Your task to perform on an android device: Show me productivity apps on the Play Store Image 0: 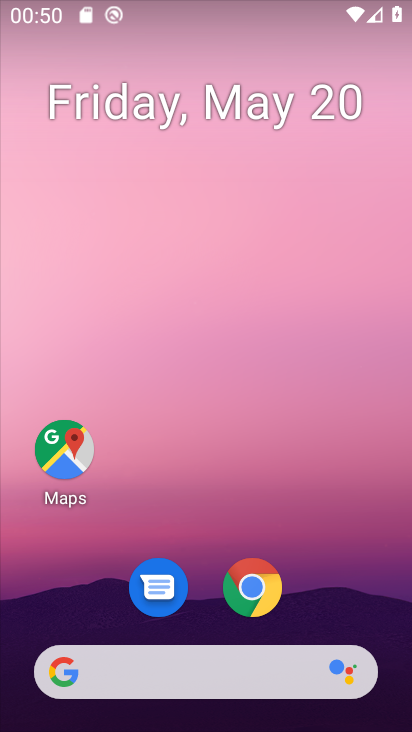
Step 0: drag from (382, 617) to (352, 318)
Your task to perform on an android device: Show me productivity apps on the Play Store Image 1: 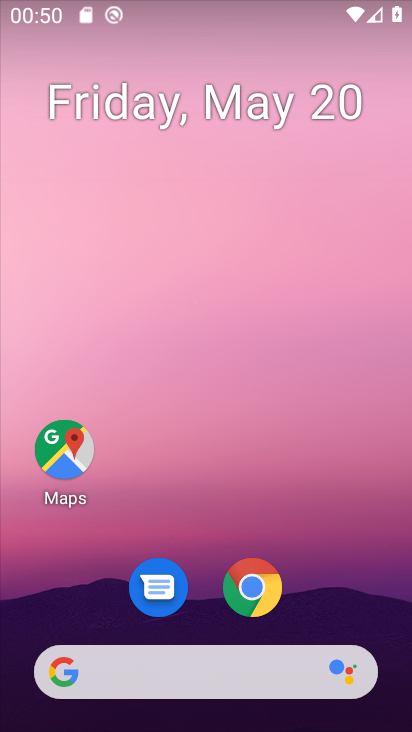
Step 1: drag from (377, 563) to (370, 250)
Your task to perform on an android device: Show me productivity apps on the Play Store Image 2: 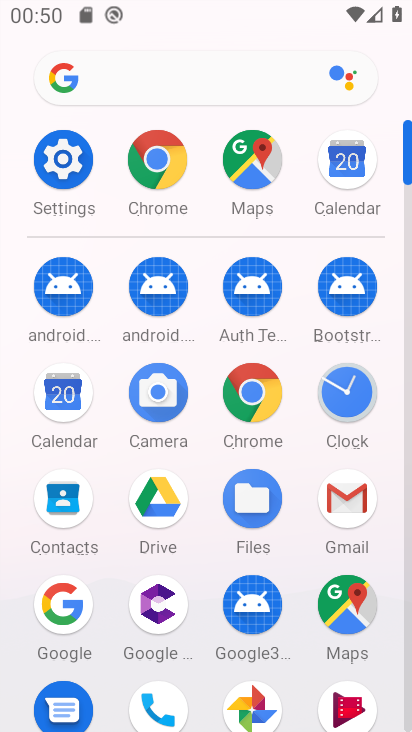
Step 2: drag from (393, 619) to (385, 440)
Your task to perform on an android device: Show me productivity apps on the Play Store Image 3: 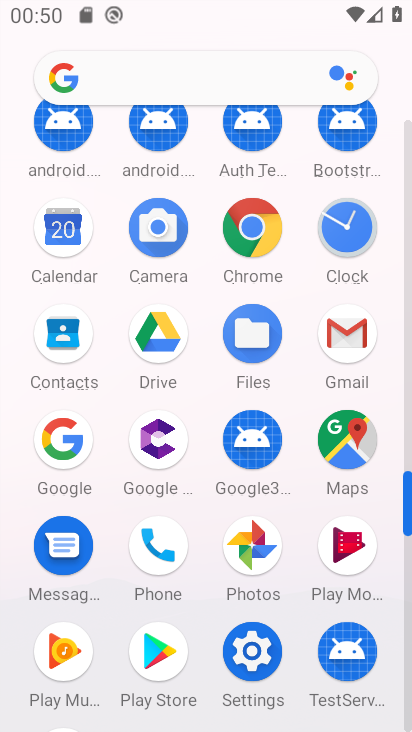
Step 3: click (148, 685)
Your task to perform on an android device: Show me productivity apps on the Play Store Image 4: 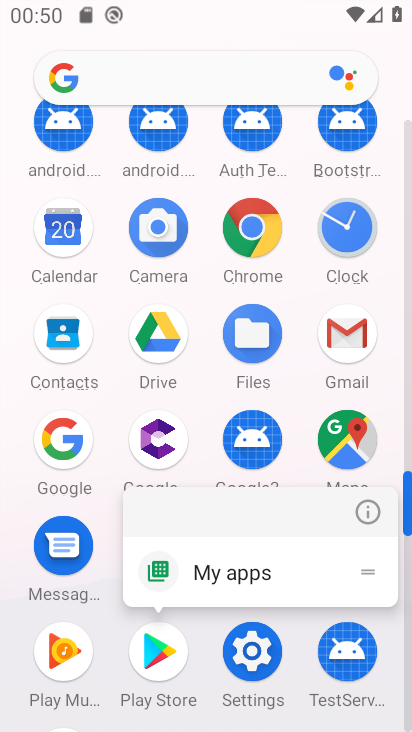
Step 4: click (155, 677)
Your task to perform on an android device: Show me productivity apps on the Play Store Image 5: 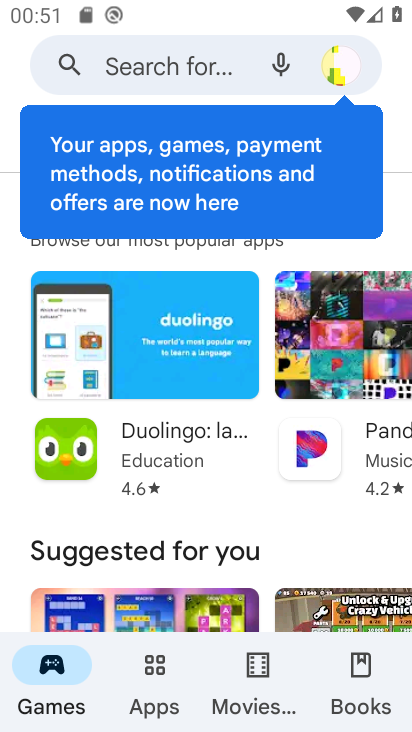
Step 5: click (157, 681)
Your task to perform on an android device: Show me productivity apps on the Play Store Image 6: 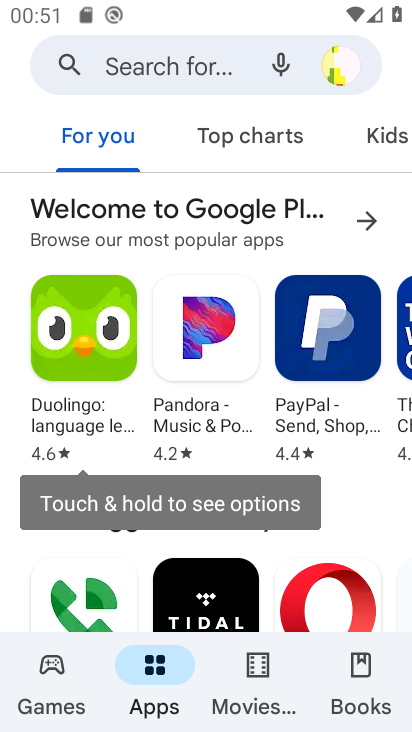
Step 6: task complete